Your task to perform on an android device: Open Google Chrome Image 0: 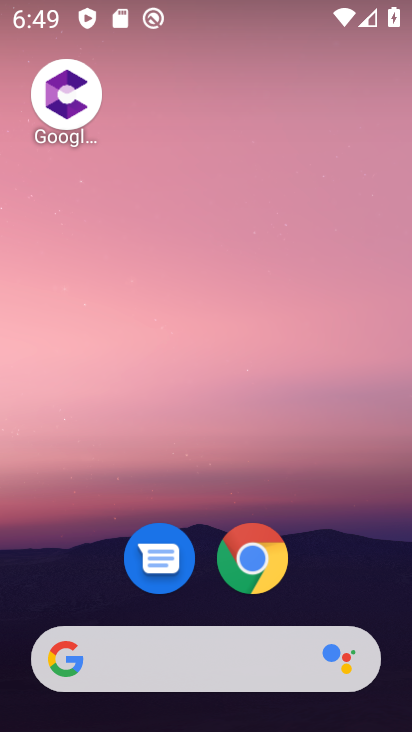
Step 0: click (255, 549)
Your task to perform on an android device: Open Google Chrome Image 1: 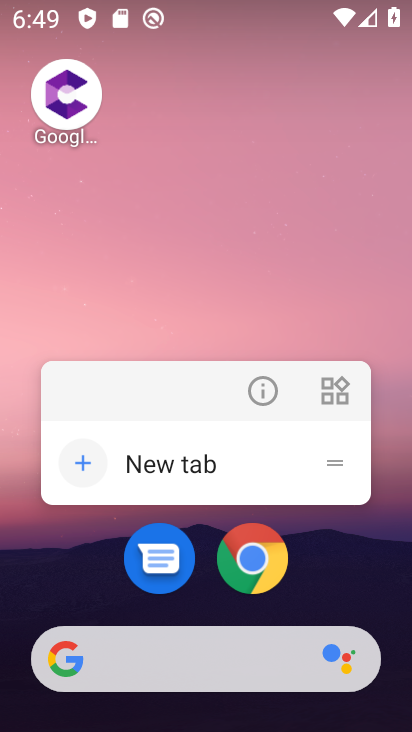
Step 1: click (264, 548)
Your task to perform on an android device: Open Google Chrome Image 2: 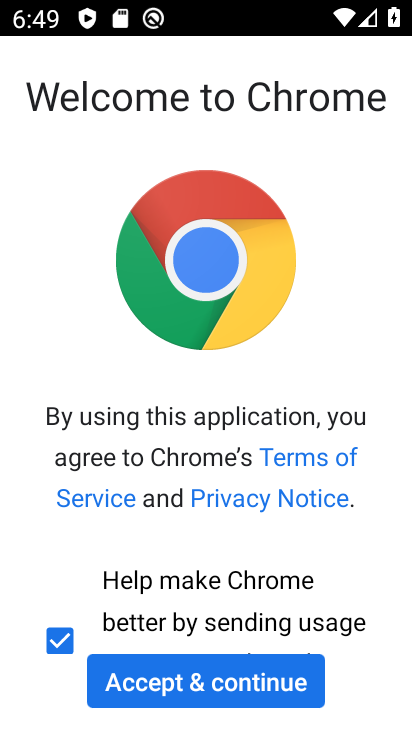
Step 2: click (225, 684)
Your task to perform on an android device: Open Google Chrome Image 3: 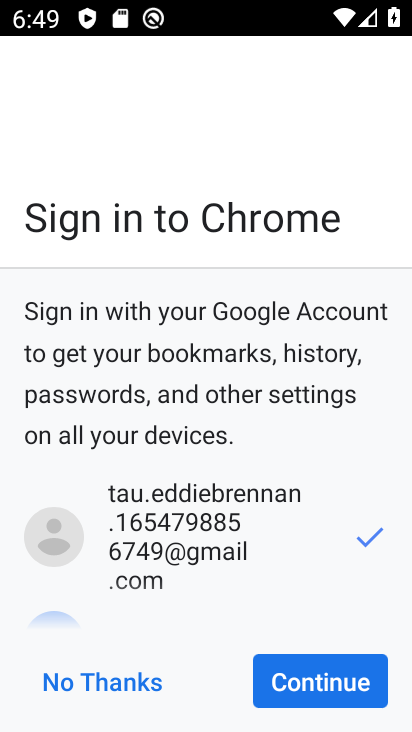
Step 3: click (332, 675)
Your task to perform on an android device: Open Google Chrome Image 4: 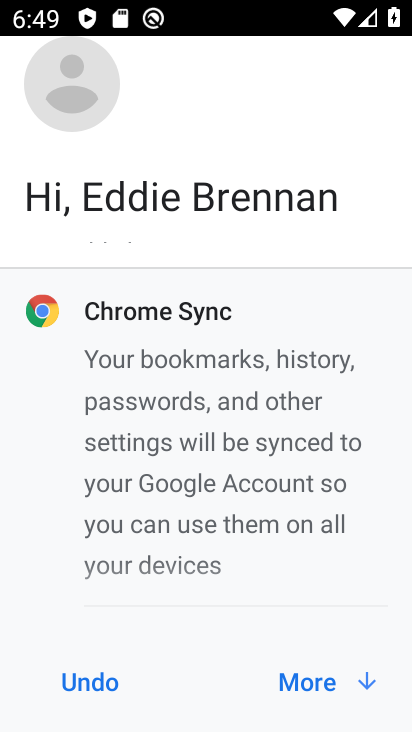
Step 4: click (356, 672)
Your task to perform on an android device: Open Google Chrome Image 5: 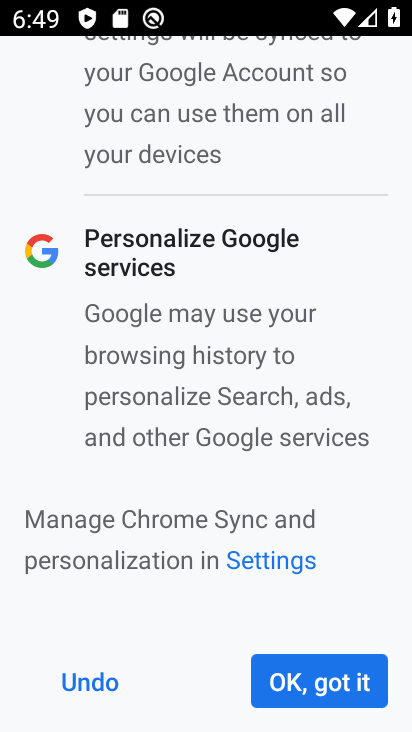
Step 5: click (333, 674)
Your task to perform on an android device: Open Google Chrome Image 6: 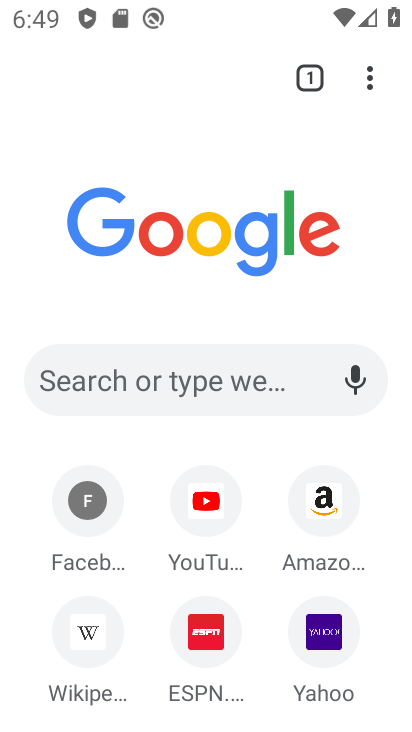
Step 6: task complete